Your task to perform on an android device: allow cookies in the chrome app Image 0: 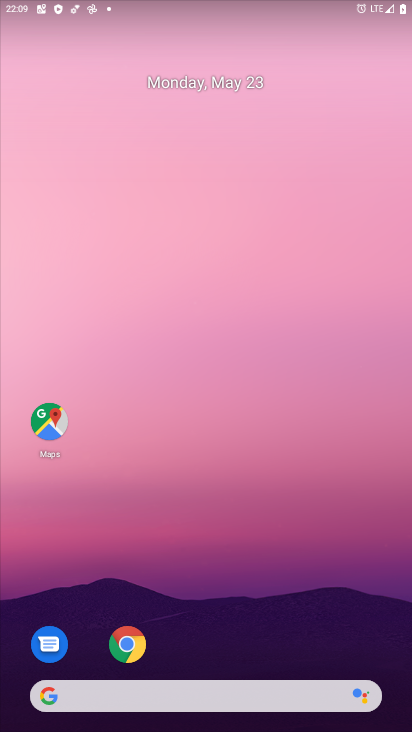
Step 0: click (140, 644)
Your task to perform on an android device: allow cookies in the chrome app Image 1: 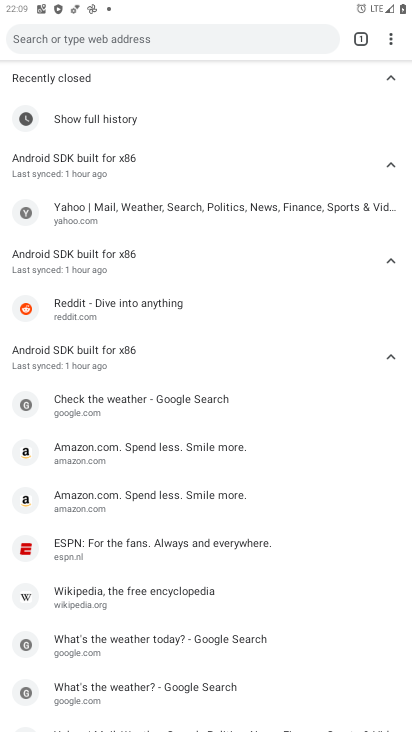
Step 1: click (390, 41)
Your task to perform on an android device: allow cookies in the chrome app Image 2: 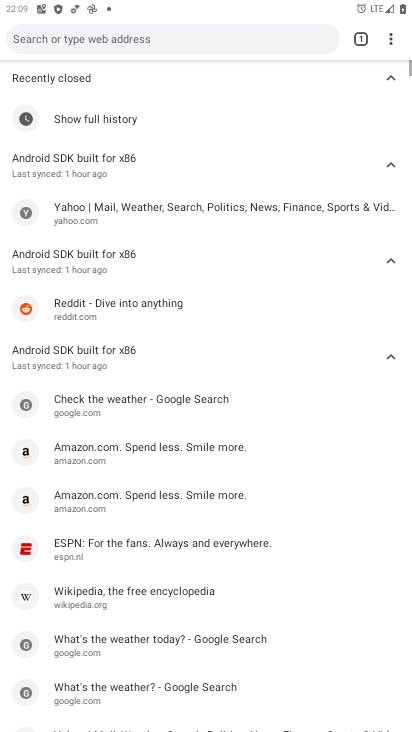
Step 2: click (391, 41)
Your task to perform on an android device: allow cookies in the chrome app Image 3: 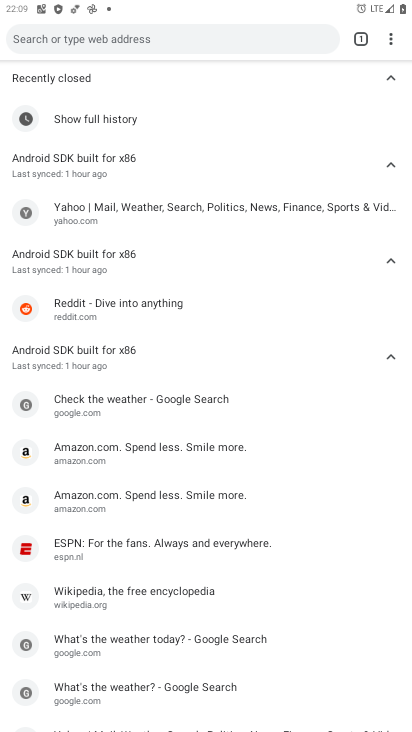
Step 3: click (392, 40)
Your task to perform on an android device: allow cookies in the chrome app Image 4: 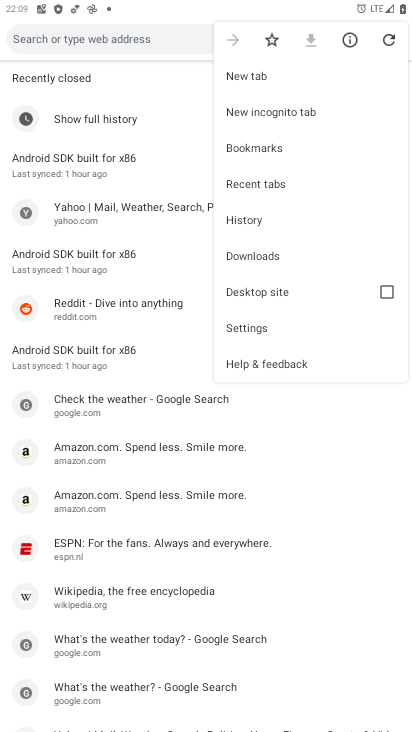
Step 4: click (277, 329)
Your task to perform on an android device: allow cookies in the chrome app Image 5: 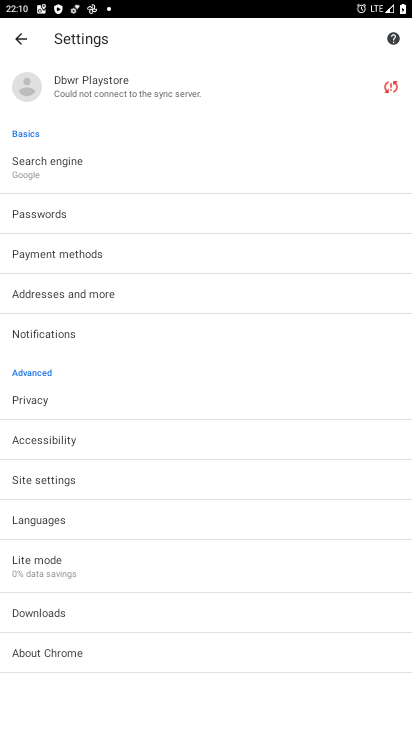
Step 5: click (106, 483)
Your task to perform on an android device: allow cookies in the chrome app Image 6: 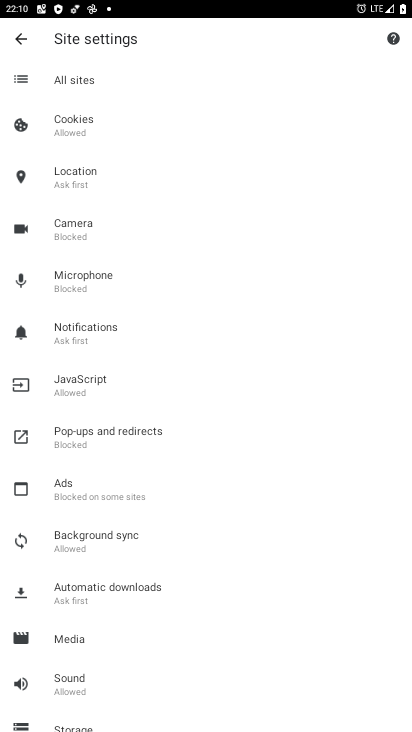
Step 6: click (83, 131)
Your task to perform on an android device: allow cookies in the chrome app Image 7: 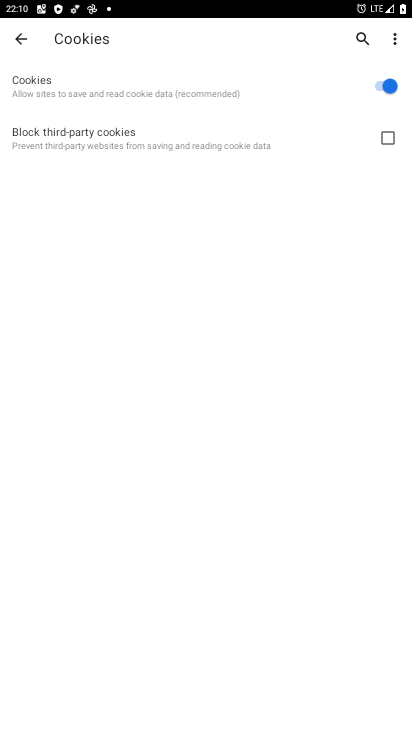
Step 7: task complete